Your task to perform on an android device: Open Youtube and go to the subscriptions tab Image 0: 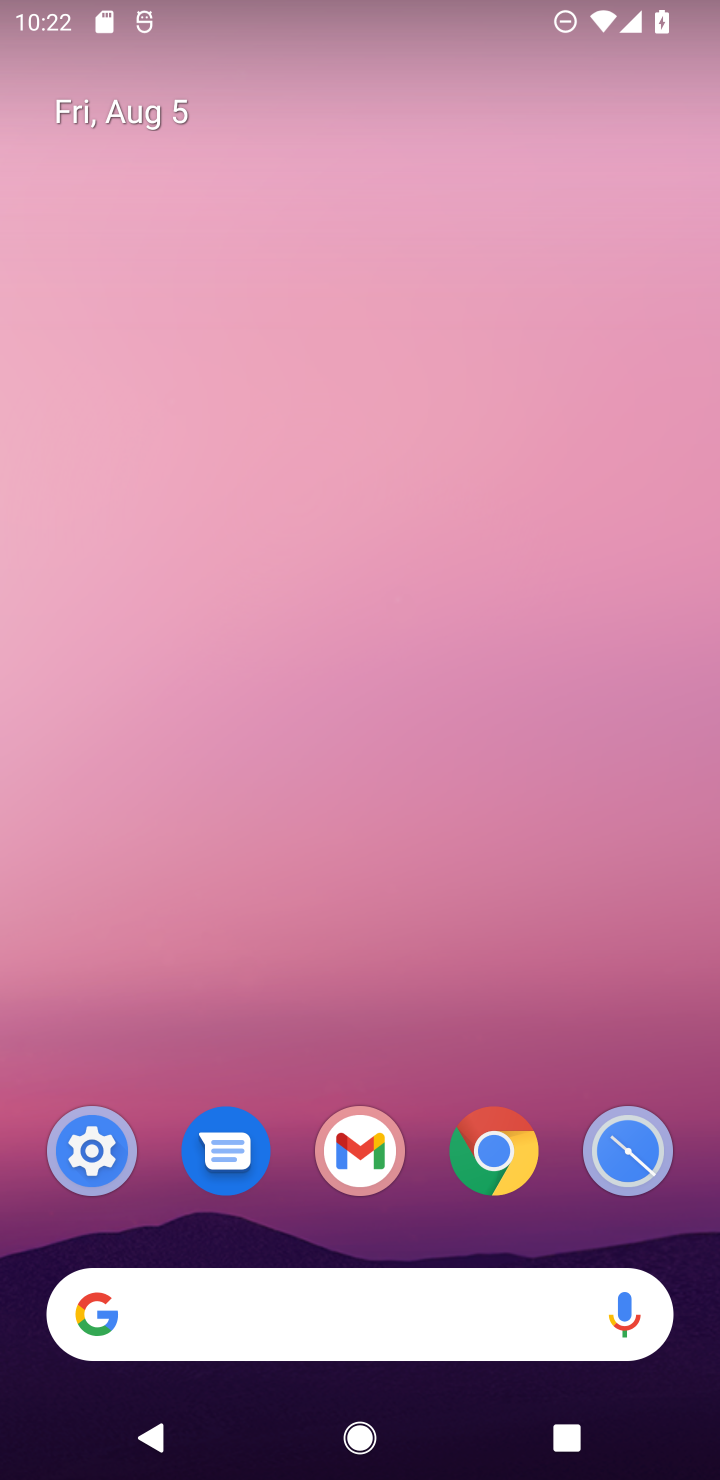
Step 0: click (380, 418)
Your task to perform on an android device: Open Youtube and go to the subscriptions tab Image 1: 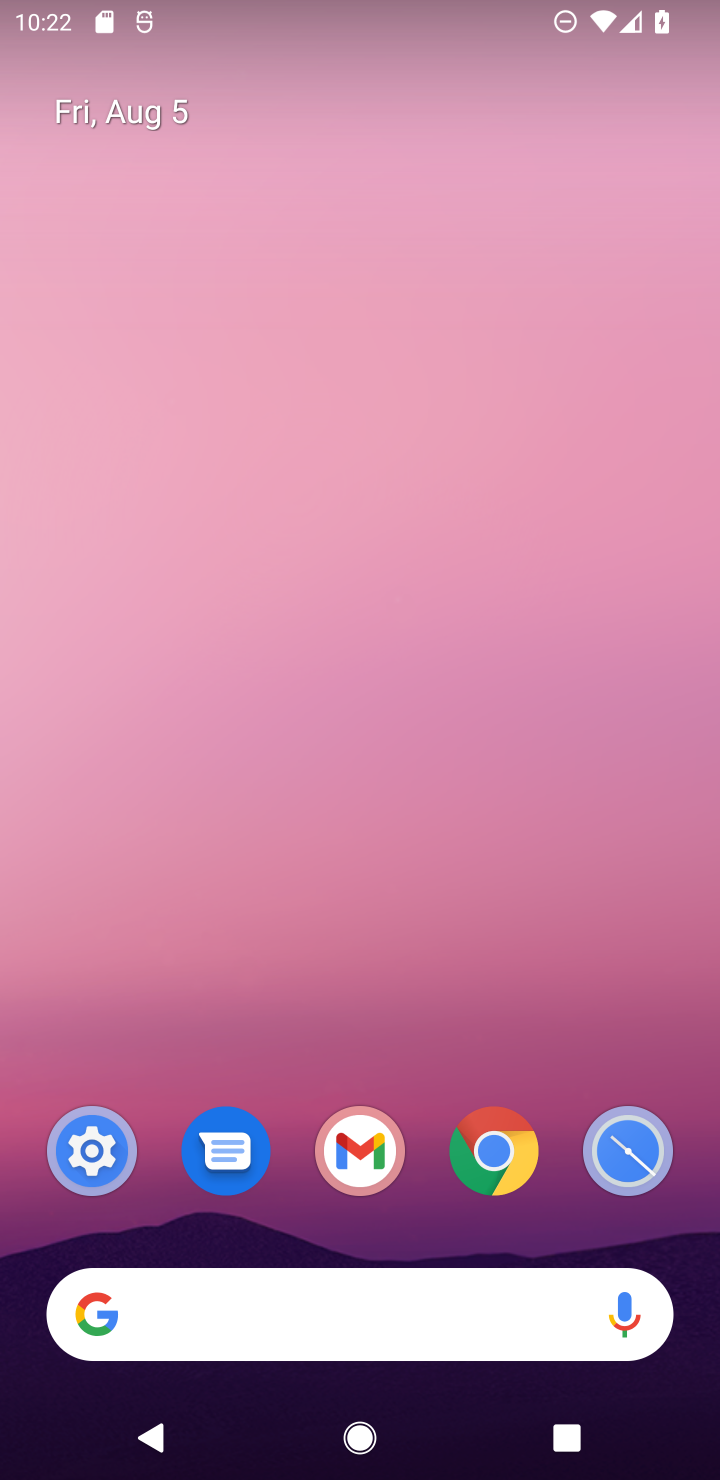
Step 1: drag from (381, 767) to (0, 508)
Your task to perform on an android device: Open Youtube and go to the subscriptions tab Image 2: 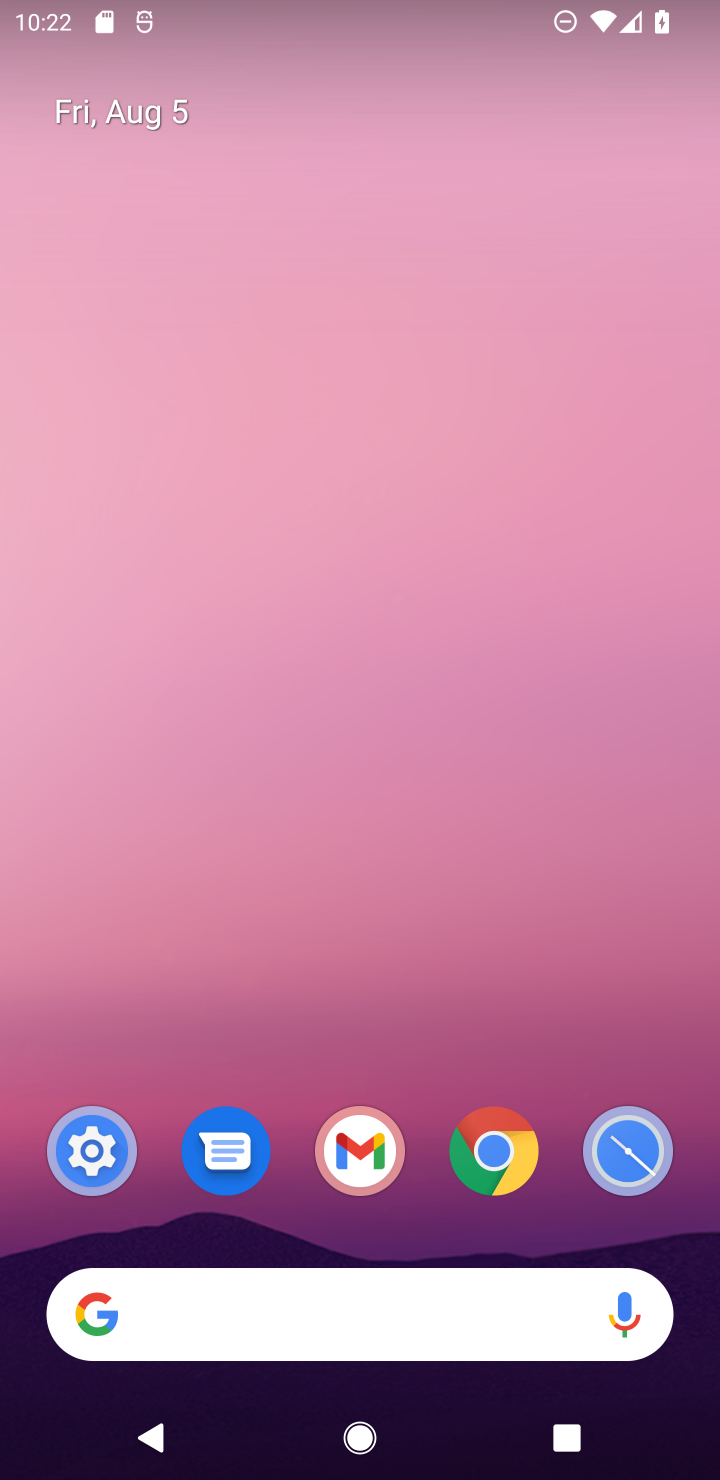
Step 2: drag from (311, 1207) to (310, 194)
Your task to perform on an android device: Open Youtube and go to the subscriptions tab Image 3: 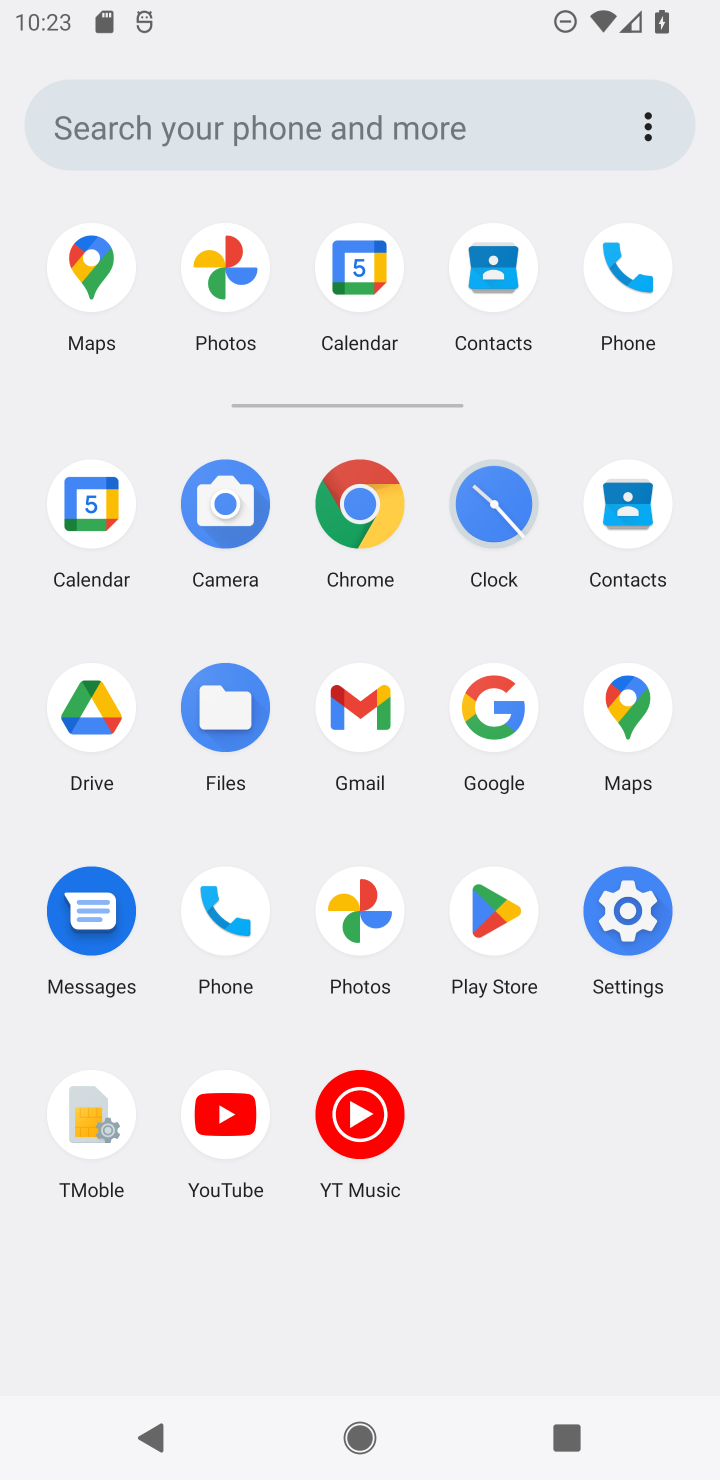
Step 3: click (407, 1276)
Your task to perform on an android device: Open Youtube and go to the subscriptions tab Image 4: 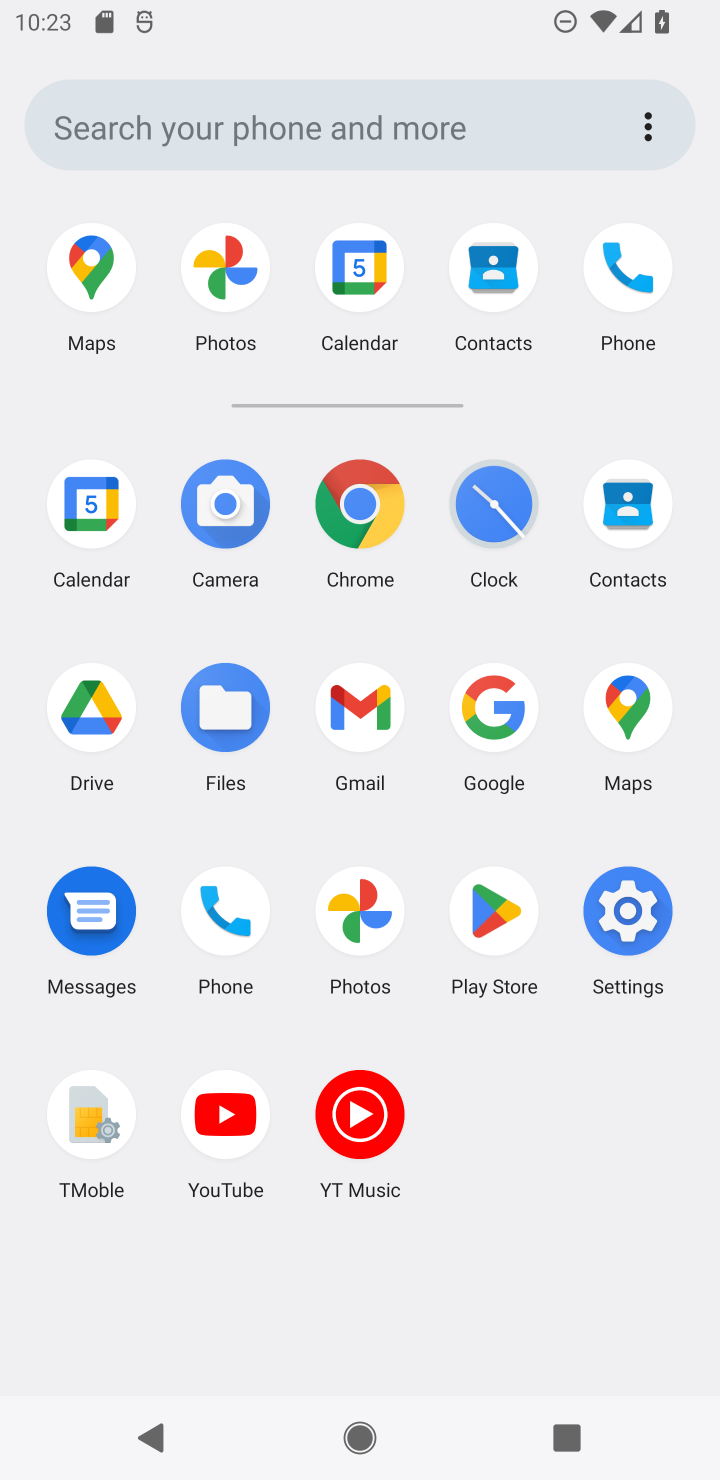
Step 4: click (236, 1122)
Your task to perform on an android device: Open Youtube and go to the subscriptions tab Image 5: 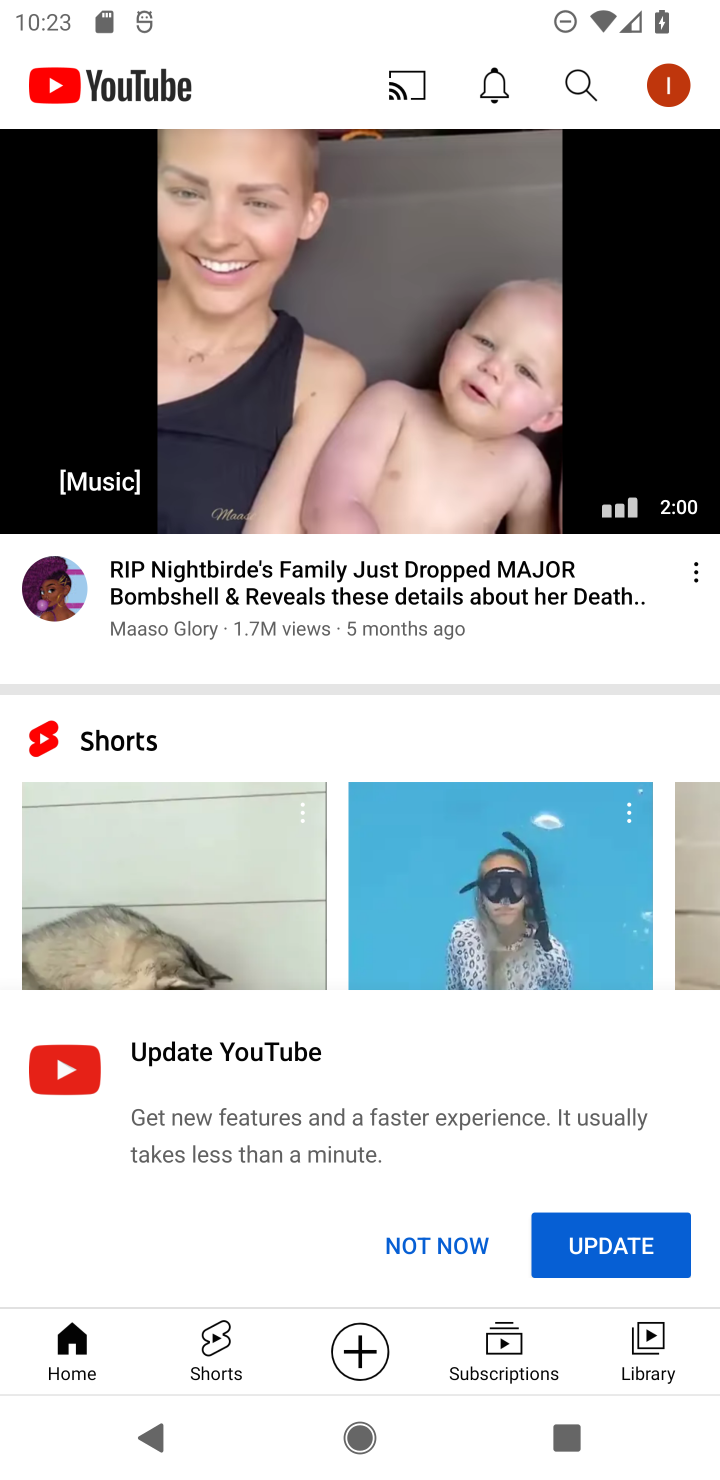
Step 5: click (530, 1332)
Your task to perform on an android device: Open Youtube and go to the subscriptions tab Image 6: 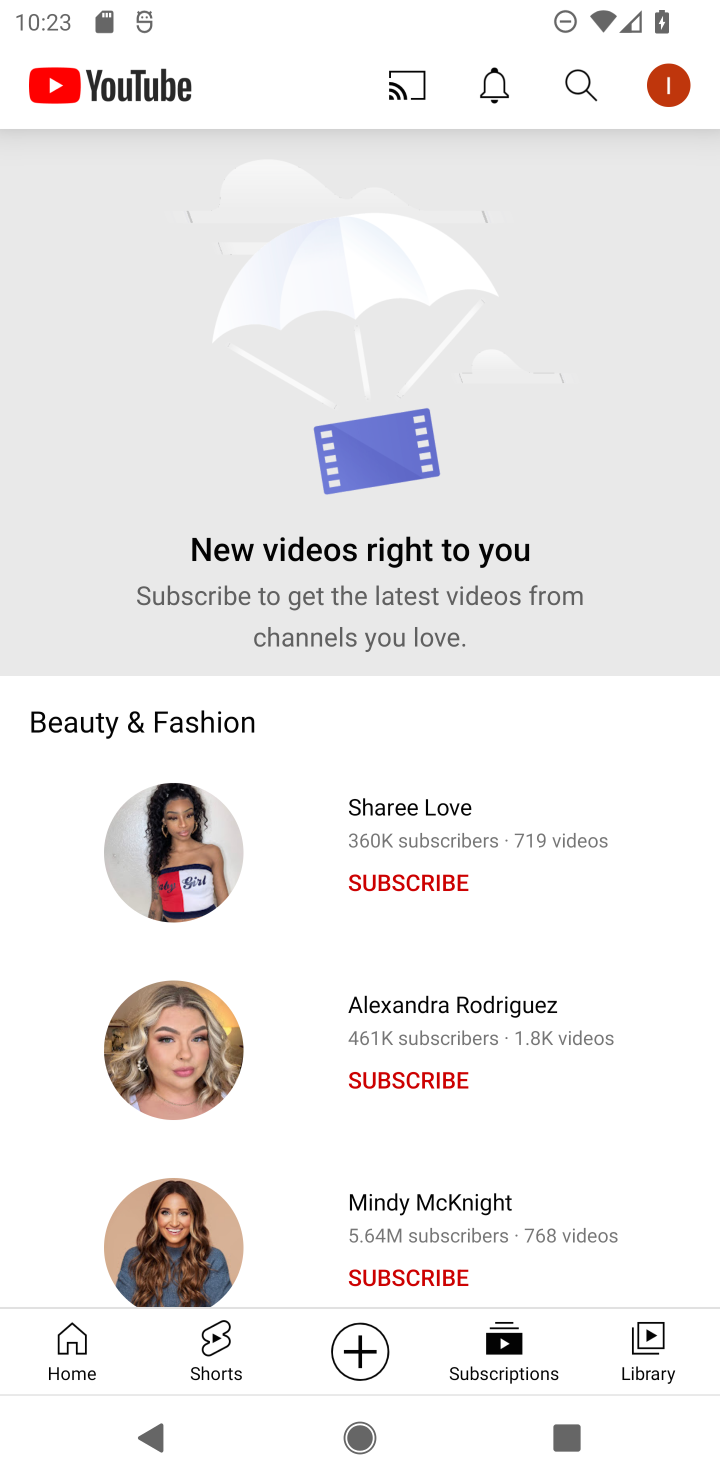
Step 6: task complete